Your task to perform on an android device: turn off smart reply in the gmail app Image 0: 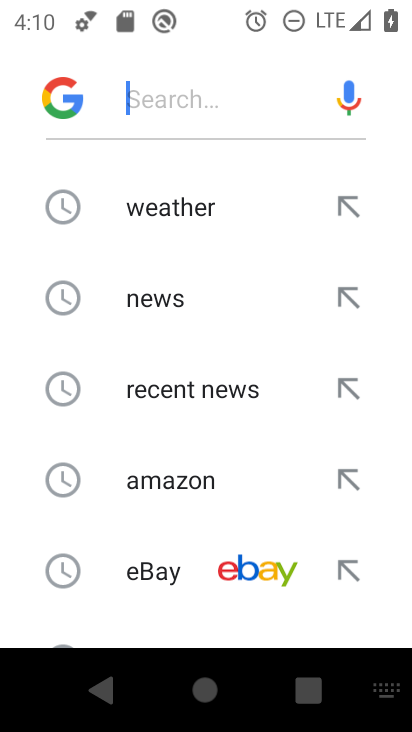
Step 0: press home button
Your task to perform on an android device: turn off smart reply in the gmail app Image 1: 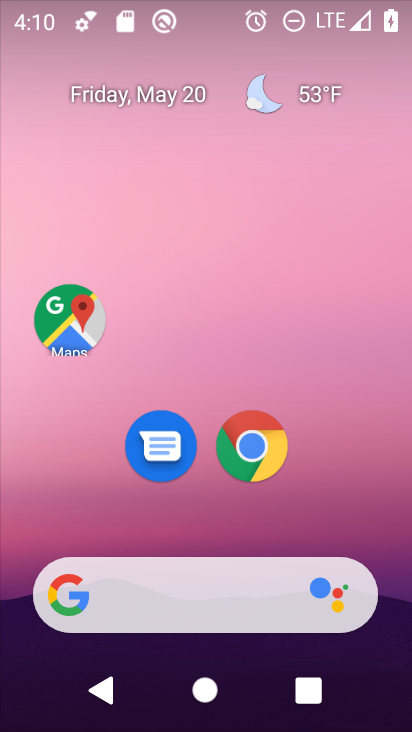
Step 1: drag from (386, 491) to (411, 67)
Your task to perform on an android device: turn off smart reply in the gmail app Image 2: 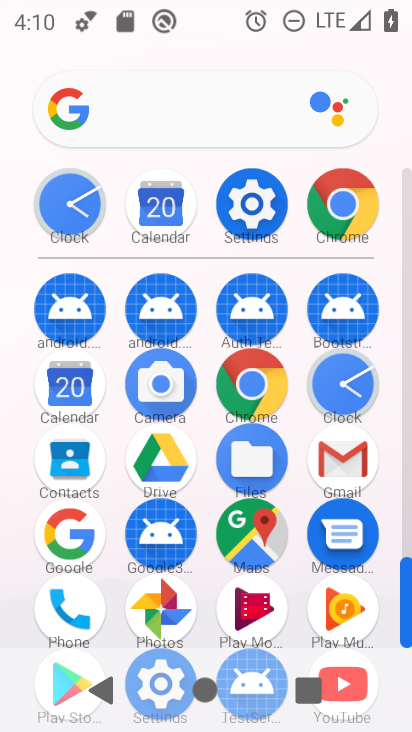
Step 2: click (357, 461)
Your task to perform on an android device: turn off smart reply in the gmail app Image 3: 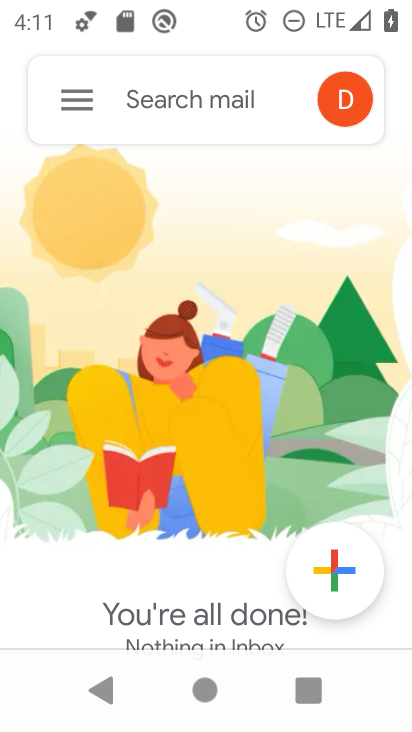
Step 3: click (77, 90)
Your task to perform on an android device: turn off smart reply in the gmail app Image 4: 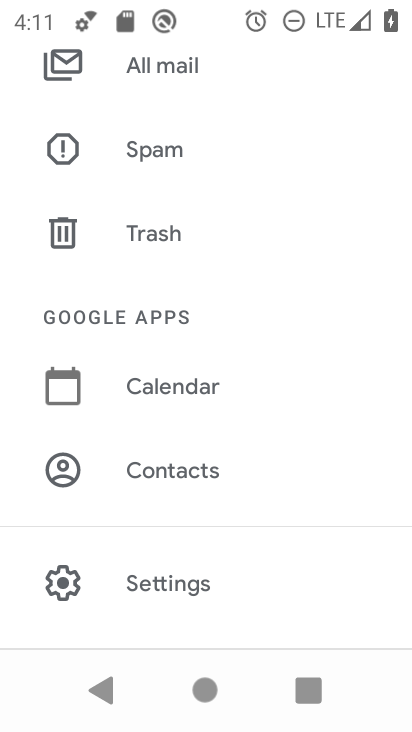
Step 4: click (167, 592)
Your task to perform on an android device: turn off smart reply in the gmail app Image 5: 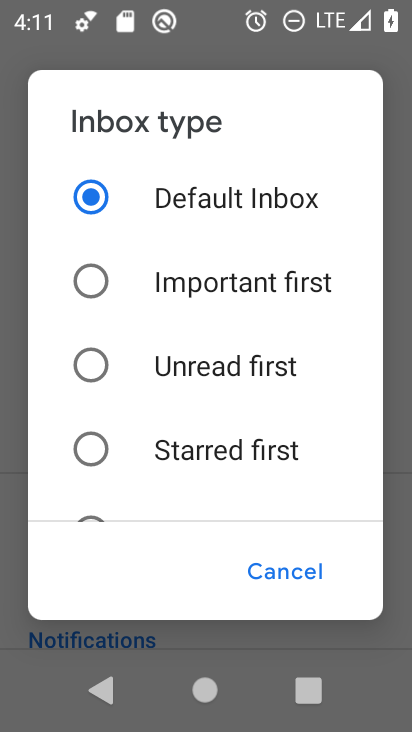
Step 5: click (278, 573)
Your task to perform on an android device: turn off smart reply in the gmail app Image 6: 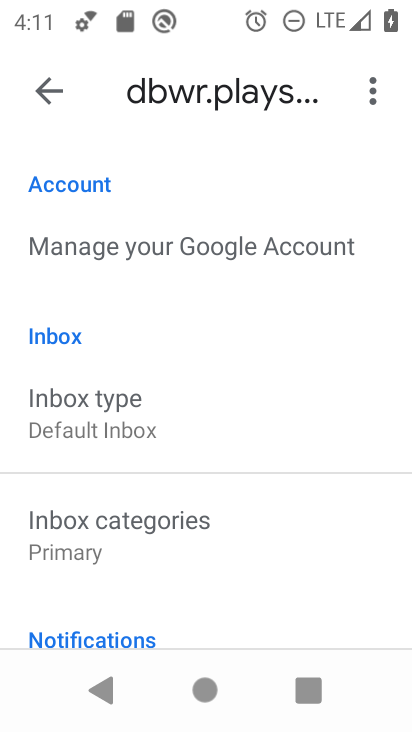
Step 6: task complete